Your task to perform on an android device: toggle notification dots Image 0: 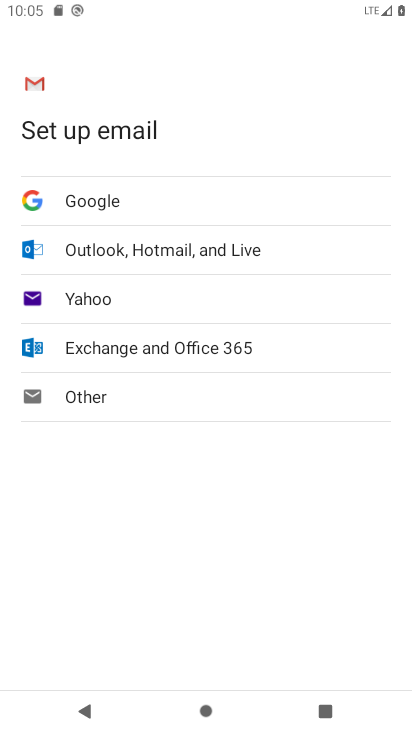
Step 0: press home button
Your task to perform on an android device: toggle notification dots Image 1: 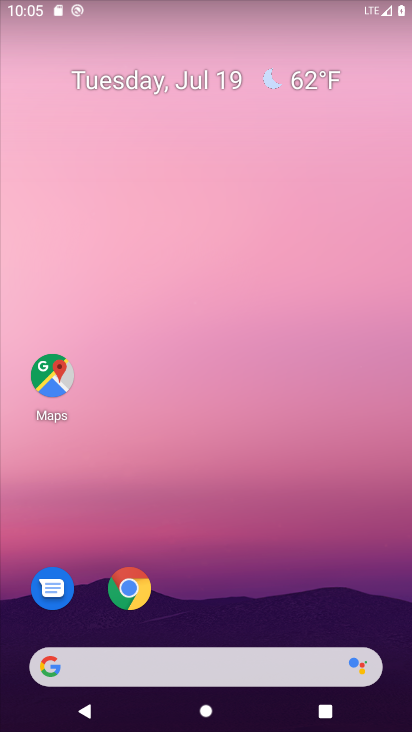
Step 1: drag from (201, 512) to (215, 59)
Your task to perform on an android device: toggle notification dots Image 2: 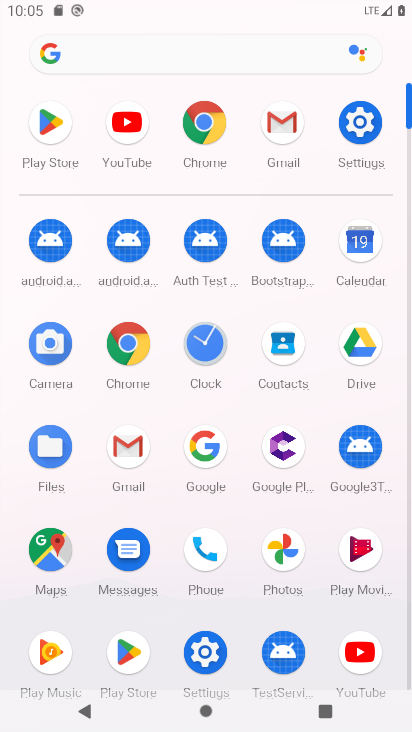
Step 2: click (204, 662)
Your task to perform on an android device: toggle notification dots Image 3: 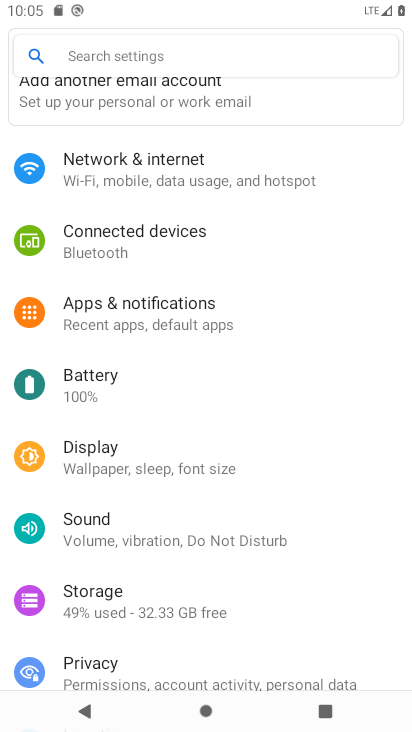
Step 3: click (168, 314)
Your task to perform on an android device: toggle notification dots Image 4: 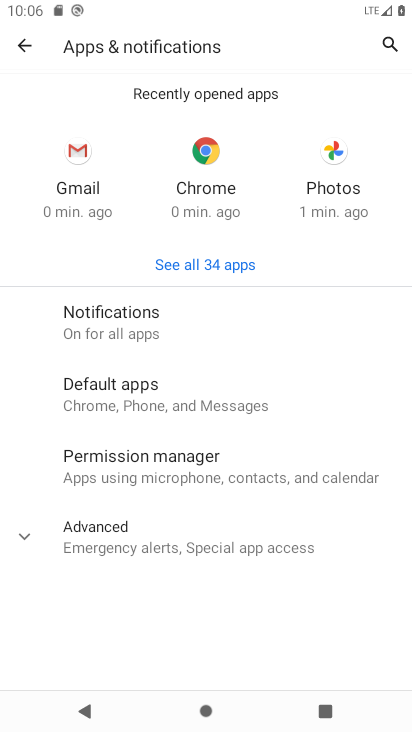
Step 4: click (92, 320)
Your task to perform on an android device: toggle notification dots Image 5: 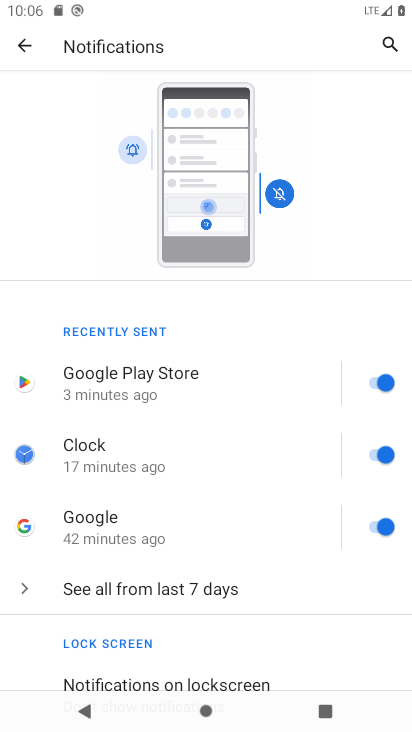
Step 5: drag from (137, 590) to (202, 325)
Your task to perform on an android device: toggle notification dots Image 6: 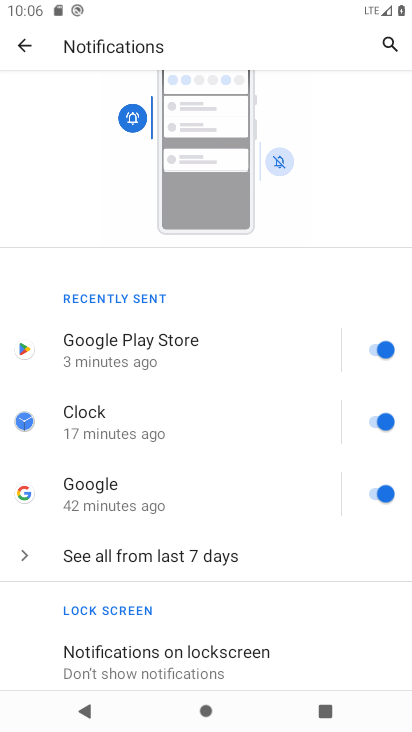
Step 6: drag from (153, 588) to (196, 302)
Your task to perform on an android device: toggle notification dots Image 7: 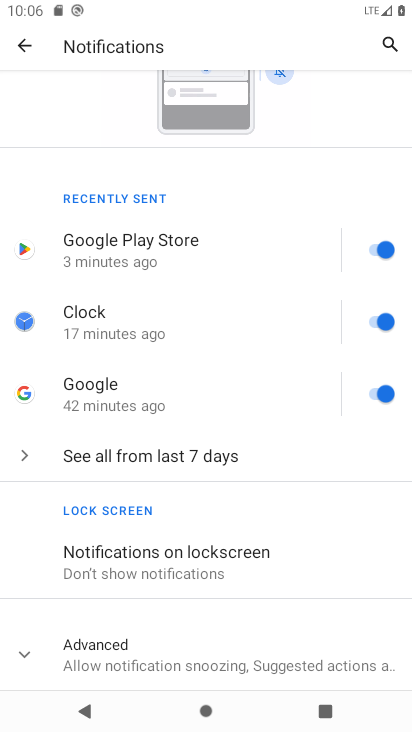
Step 7: click (139, 639)
Your task to perform on an android device: toggle notification dots Image 8: 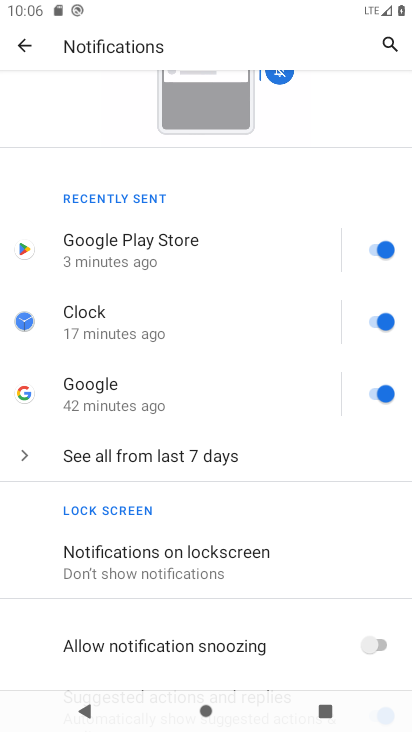
Step 8: drag from (220, 568) to (252, 306)
Your task to perform on an android device: toggle notification dots Image 9: 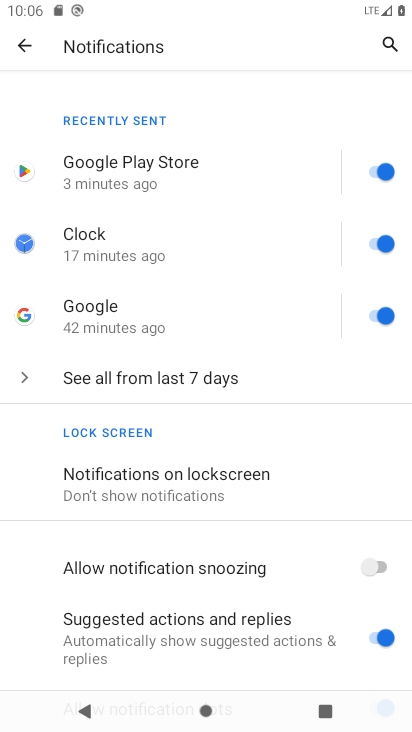
Step 9: drag from (188, 575) to (206, 278)
Your task to perform on an android device: toggle notification dots Image 10: 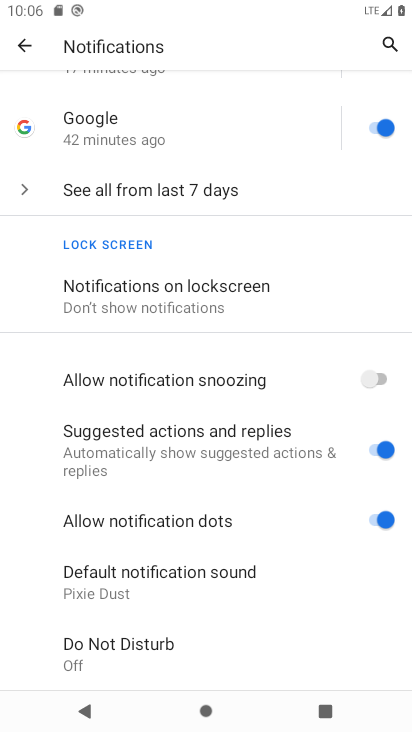
Step 10: click (373, 518)
Your task to perform on an android device: toggle notification dots Image 11: 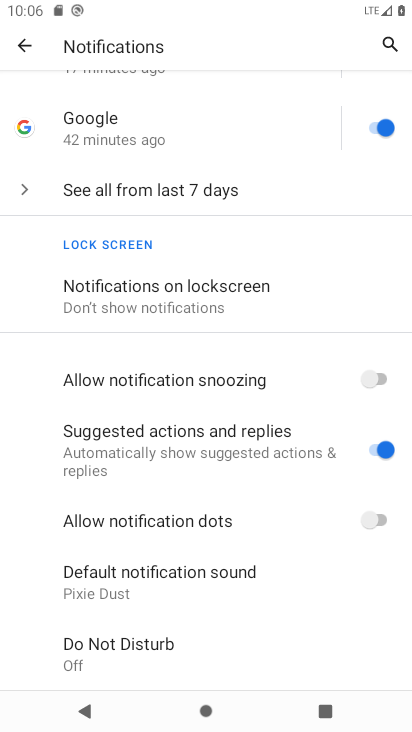
Step 11: task complete